Your task to perform on an android device: Open the map Image 0: 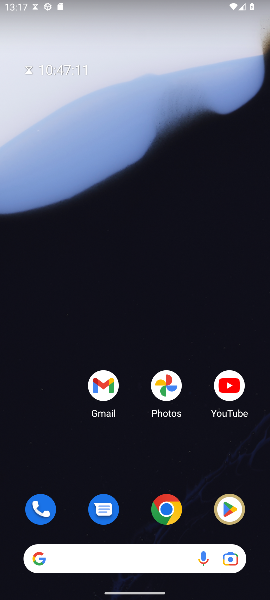
Step 0: press home button
Your task to perform on an android device: Open the map Image 1: 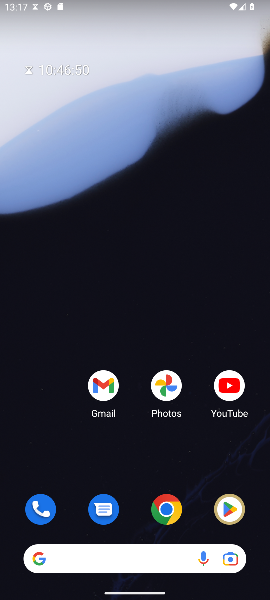
Step 1: drag from (148, 424) to (180, 90)
Your task to perform on an android device: Open the map Image 2: 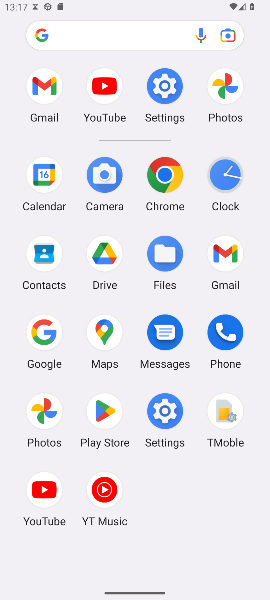
Step 2: click (100, 327)
Your task to perform on an android device: Open the map Image 3: 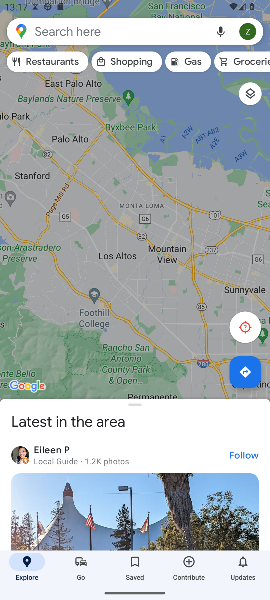
Step 3: task complete